Your task to perform on an android device: Is it going to rain tomorrow? Image 0: 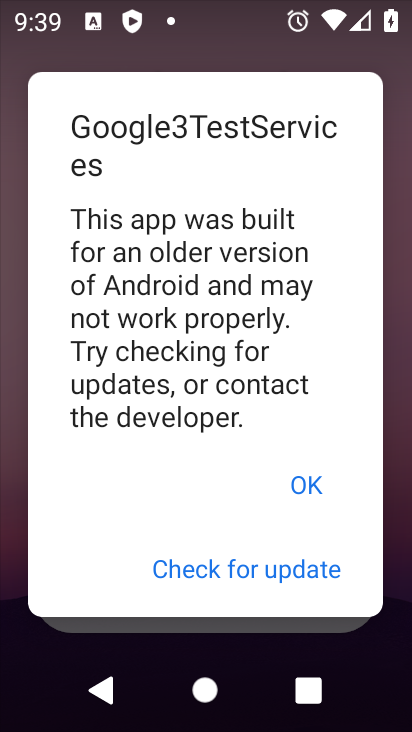
Step 0: press home button
Your task to perform on an android device: Is it going to rain tomorrow? Image 1: 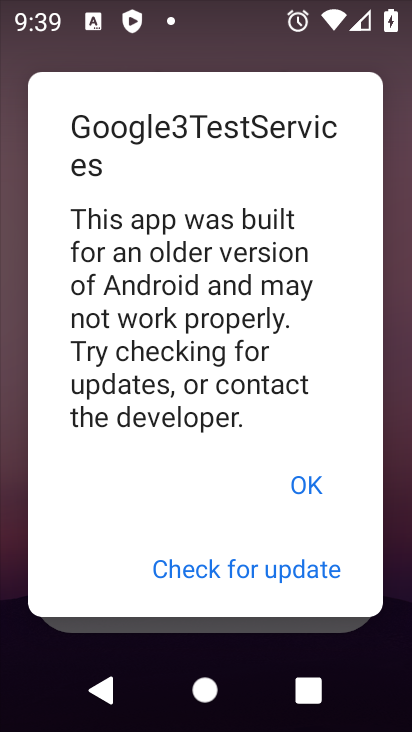
Step 1: press home button
Your task to perform on an android device: Is it going to rain tomorrow? Image 2: 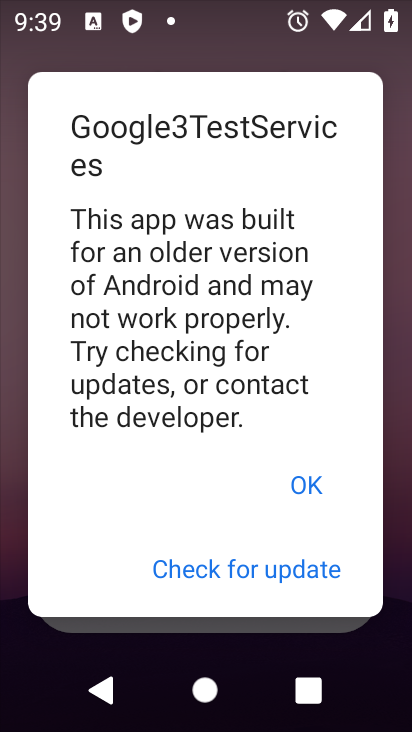
Step 2: press home button
Your task to perform on an android device: Is it going to rain tomorrow? Image 3: 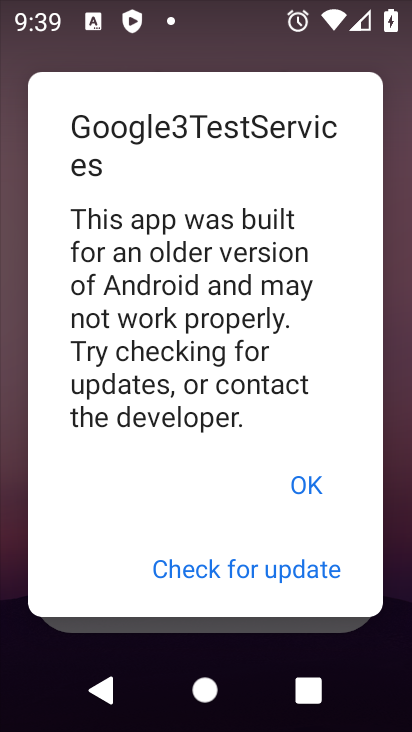
Step 3: press home button
Your task to perform on an android device: Is it going to rain tomorrow? Image 4: 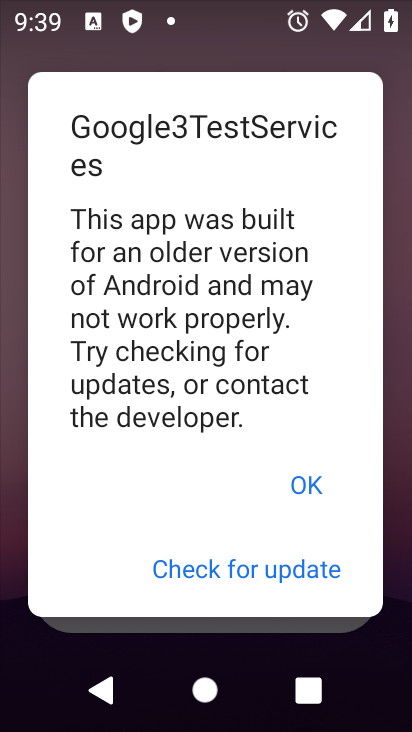
Step 4: press home button
Your task to perform on an android device: Is it going to rain tomorrow? Image 5: 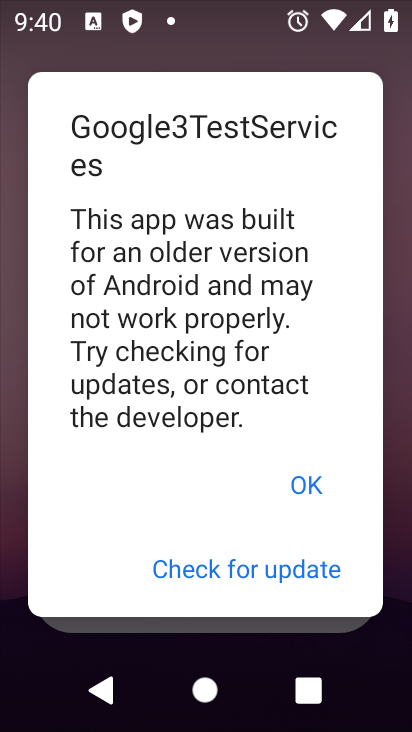
Step 5: press home button
Your task to perform on an android device: Is it going to rain tomorrow? Image 6: 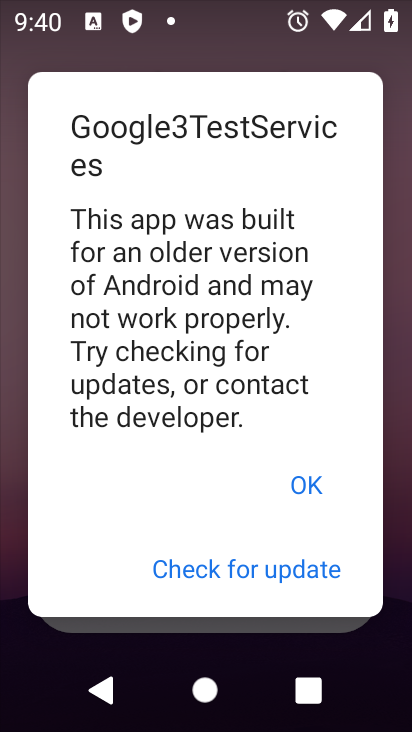
Step 6: press back button
Your task to perform on an android device: Is it going to rain tomorrow? Image 7: 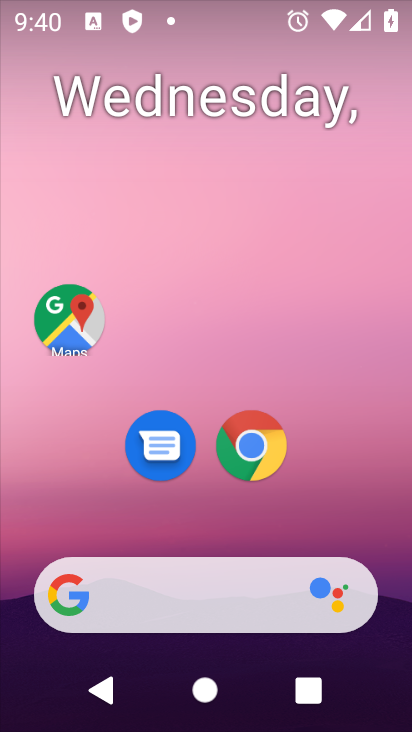
Step 7: click (69, 586)
Your task to perform on an android device: Is it going to rain tomorrow? Image 8: 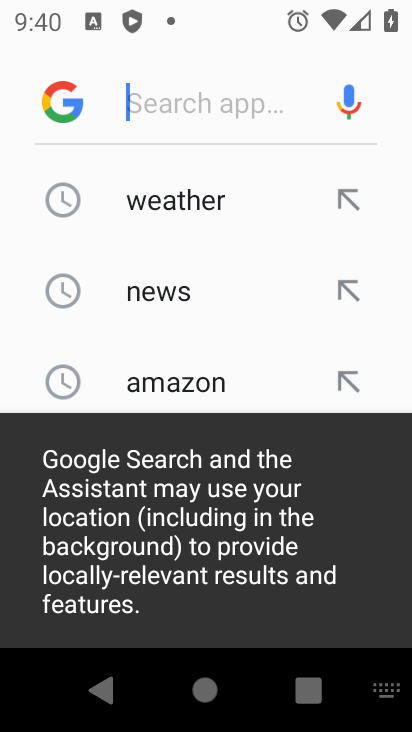
Step 8: click (60, 117)
Your task to perform on an android device: Is it going to rain tomorrow? Image 9: 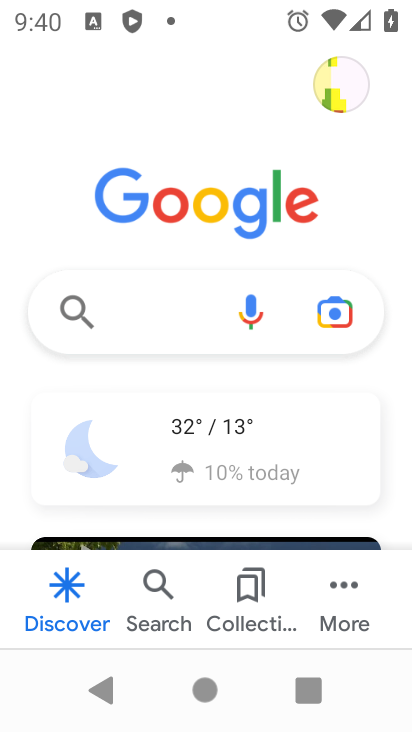
Step 9: click (209, 462)
Your task to perform on an android device: Is it going to rain tomorrow? Image 10: 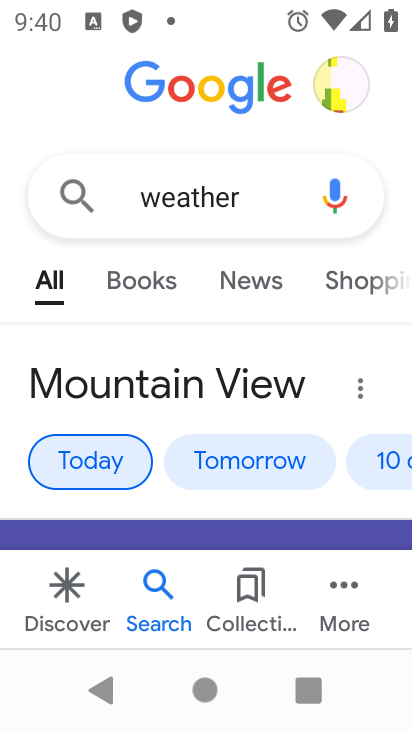
Step 10: click (265, 457)
Your task to perform on an android device: Is it going to rain tomorrow? Image 11: 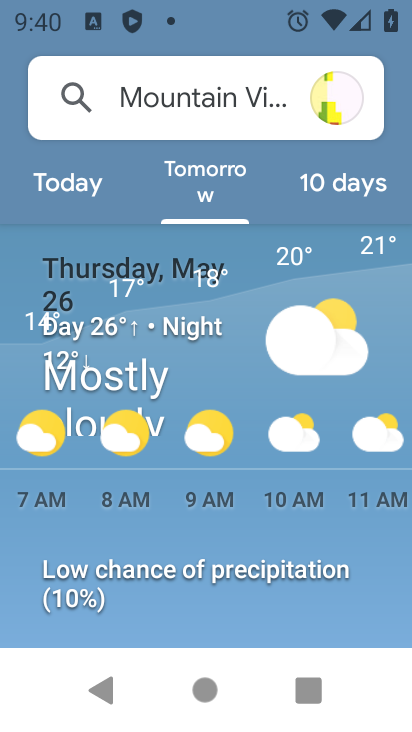
Step 11: task complete